Your task to perform on an android device: open chrome privacy settings Image 0: 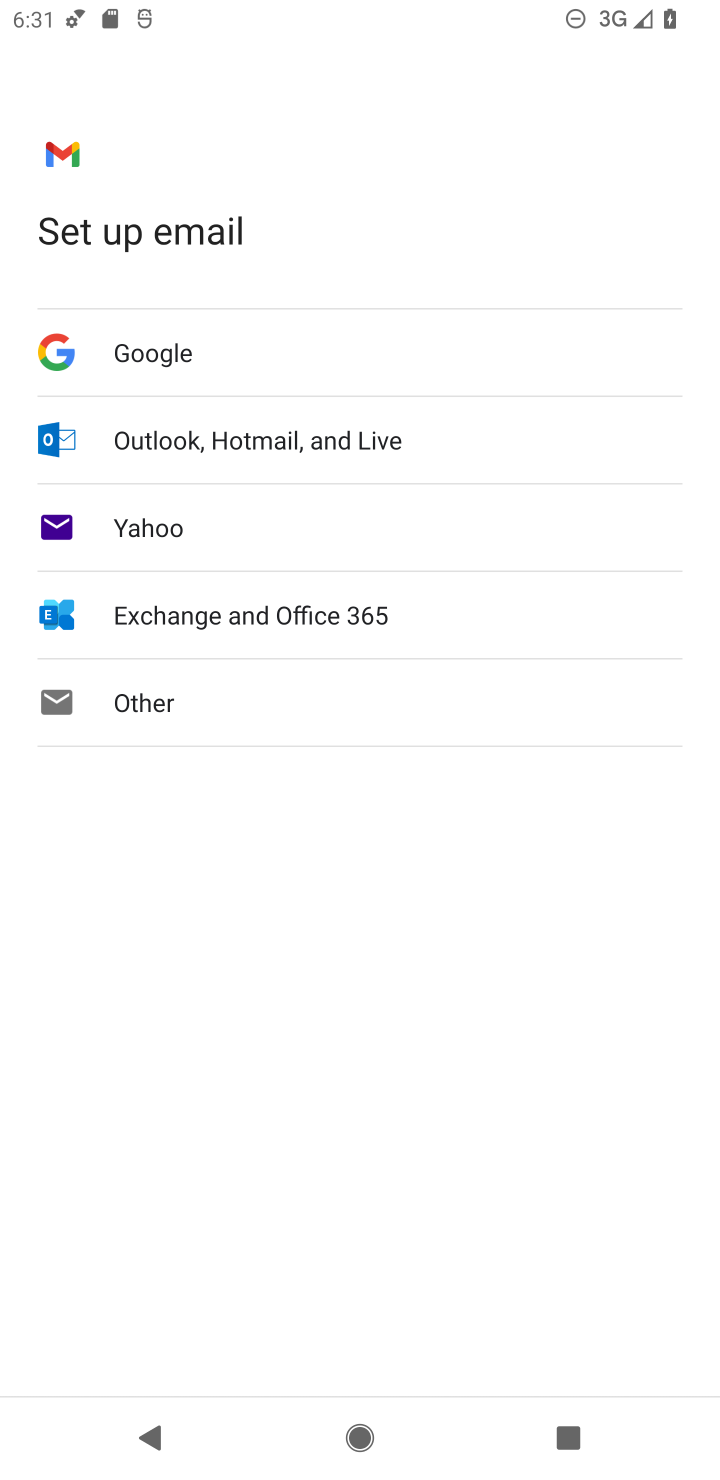
Step 0: press home button
Your task to perform on an android device: open chrome privacy settings Image 1: 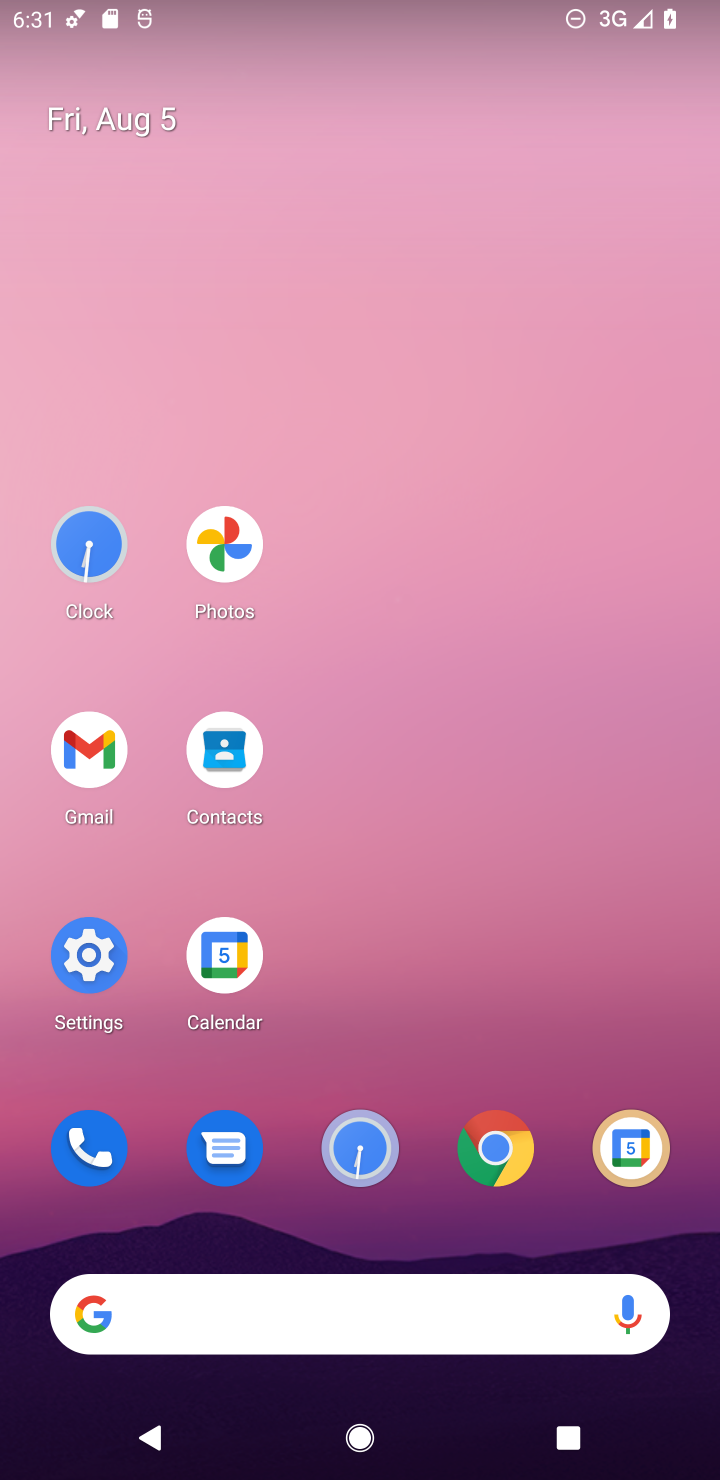
Step 1: click (484, 1148)
Your task to perform on an android device: open chrome privacy settings Image 2: 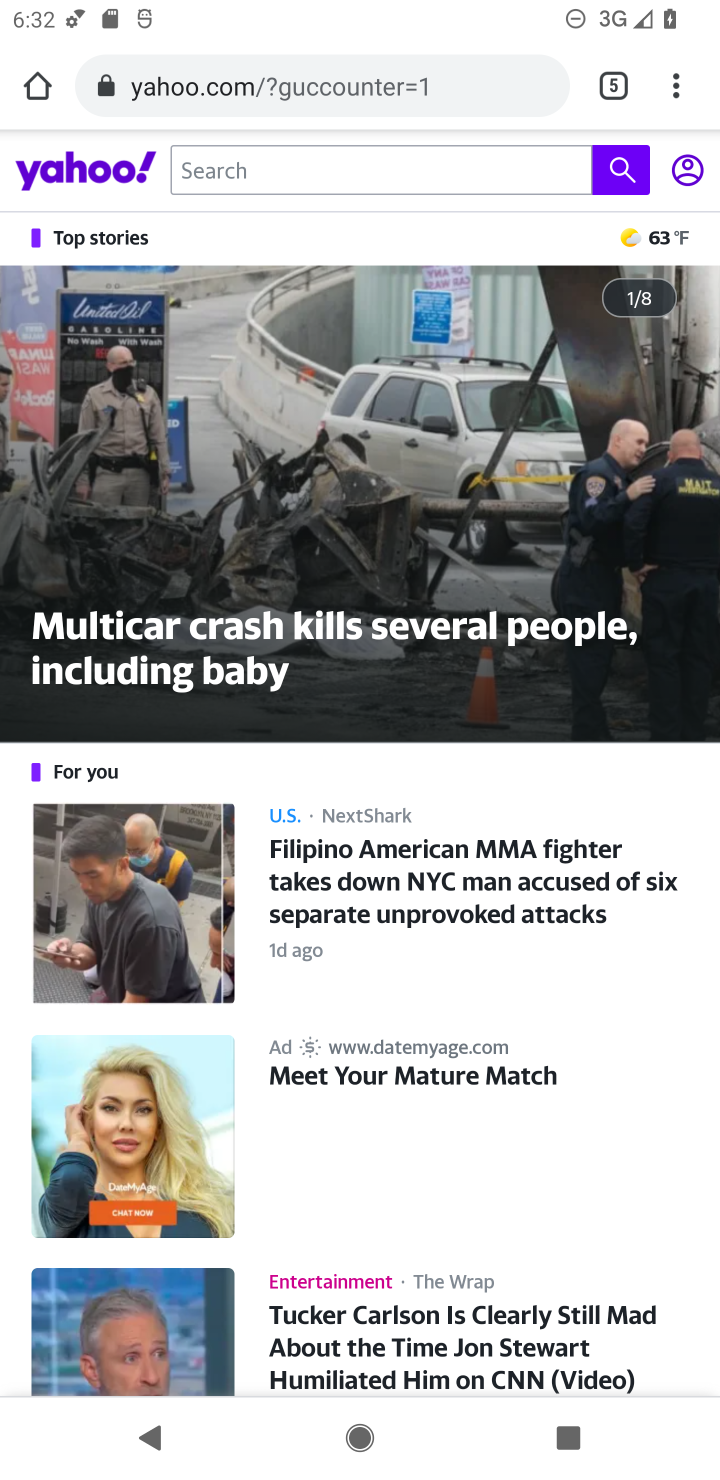
Step 2: click (666, 79)
Your task to perform on an android device: open chrome privacy settings Image 3: 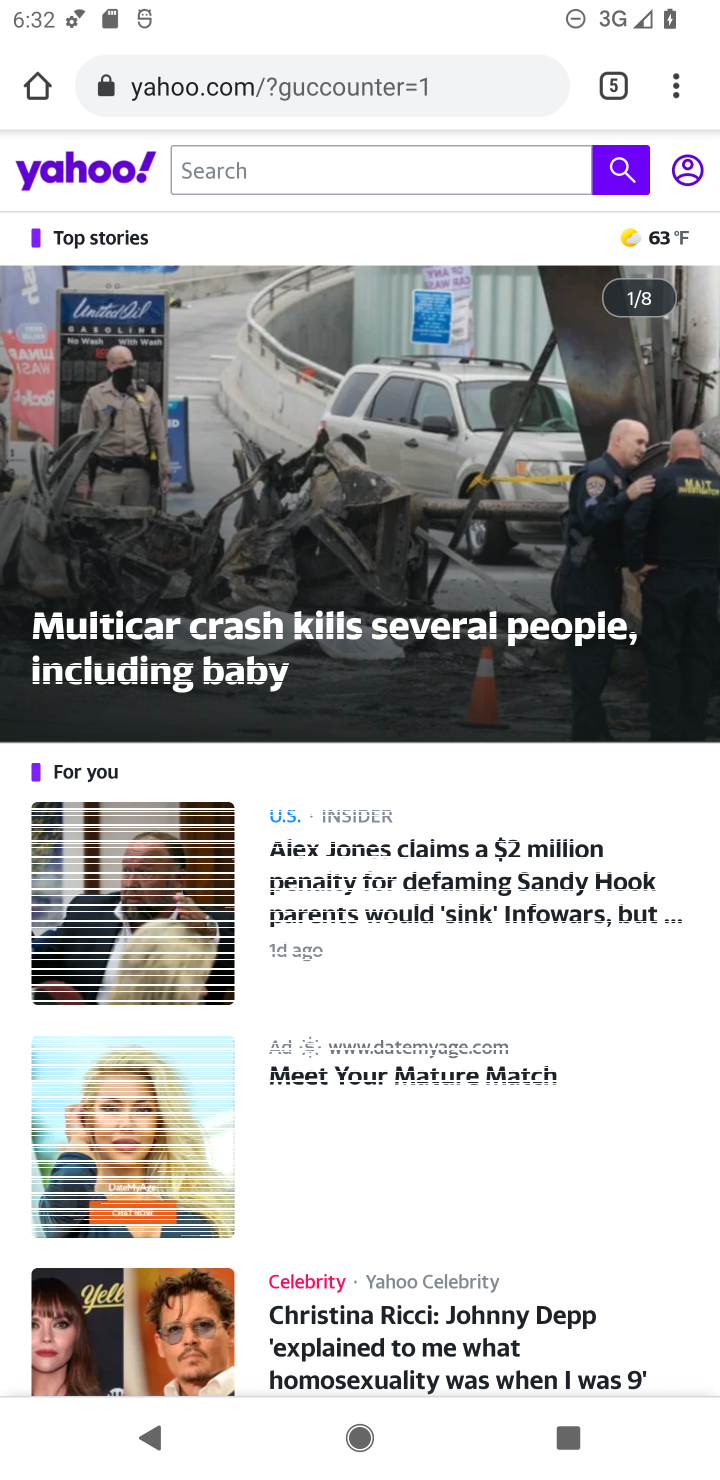
Step 3: click (682, 97)
Your task to perform on an android device: open chrome privacy settings Image 4: 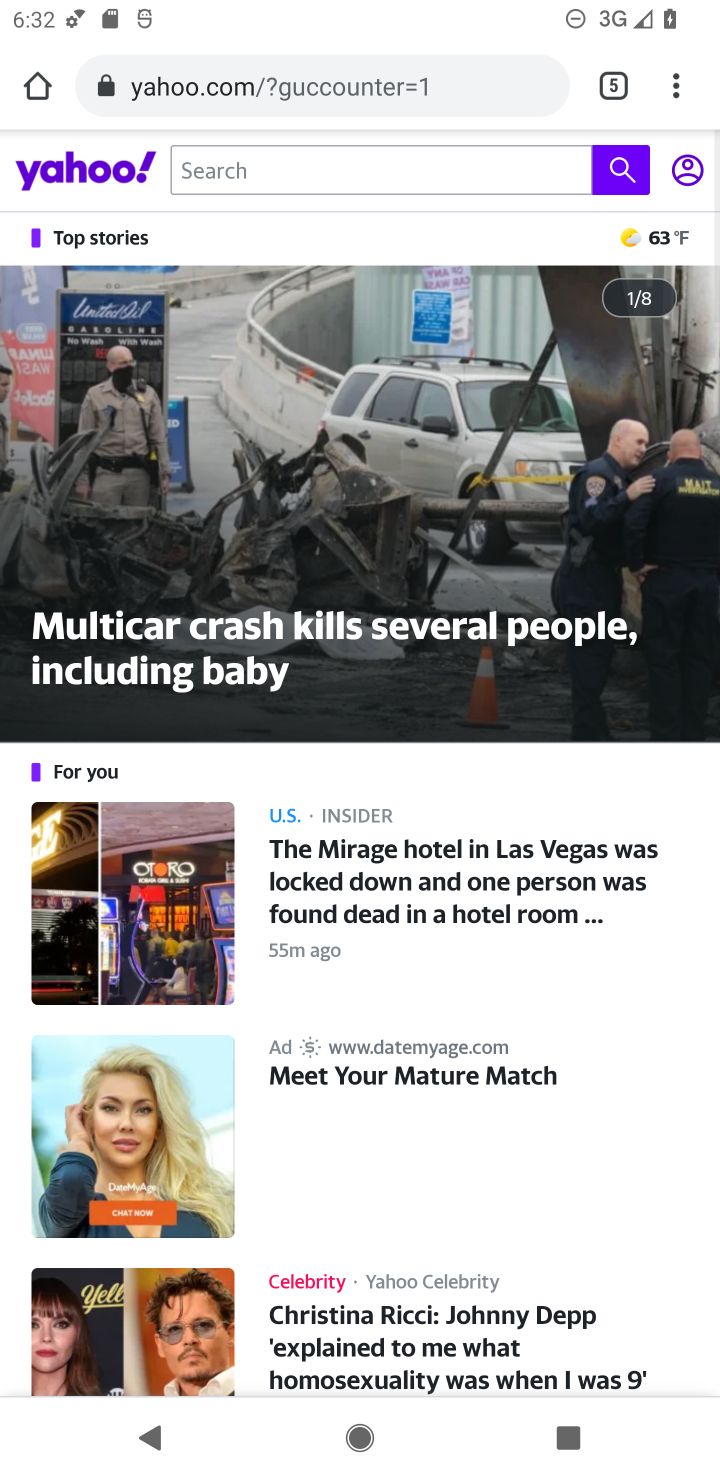
Step 4: click (682, 97)
Your task to perform on an android device: open chrome privacy settings Image 5: 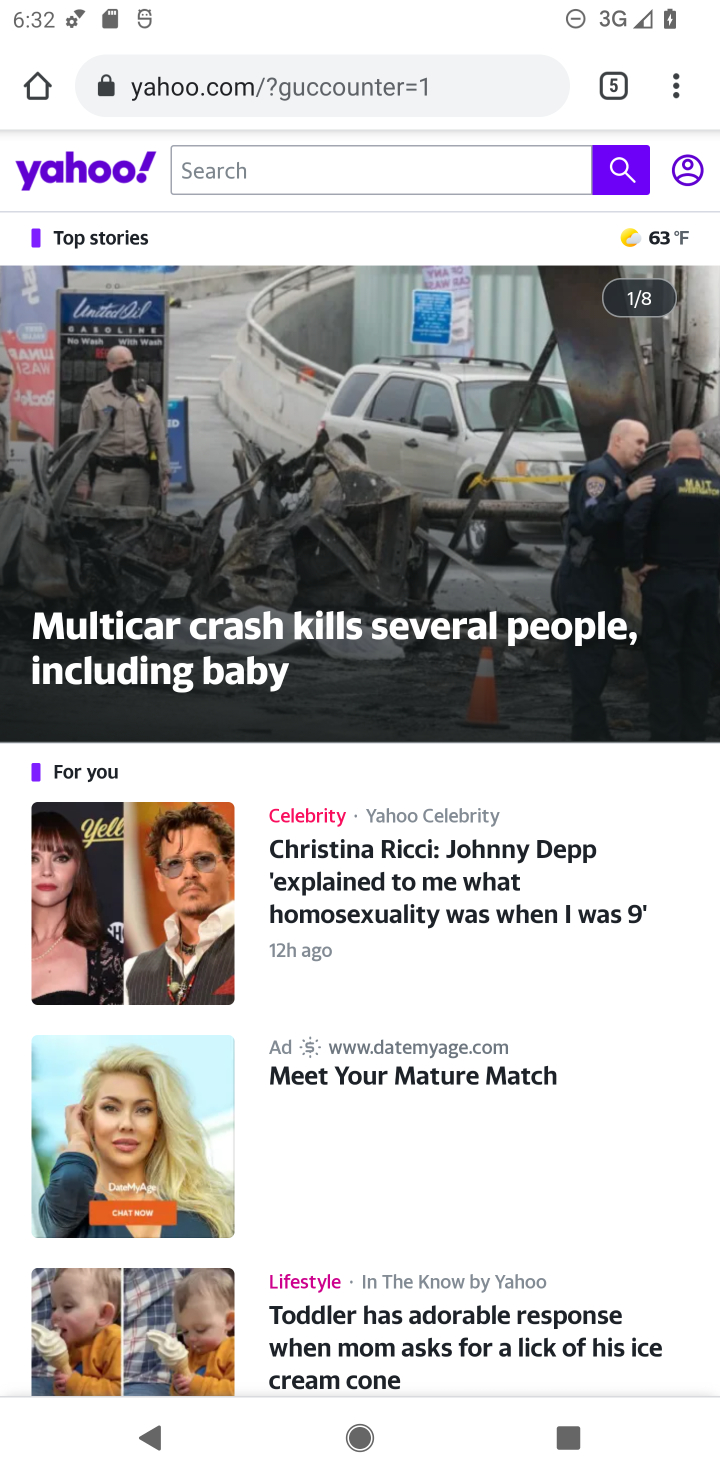
Step 5: click (671, 53)
Your task to perform on an android device: open chrome privacy settings Image 6: 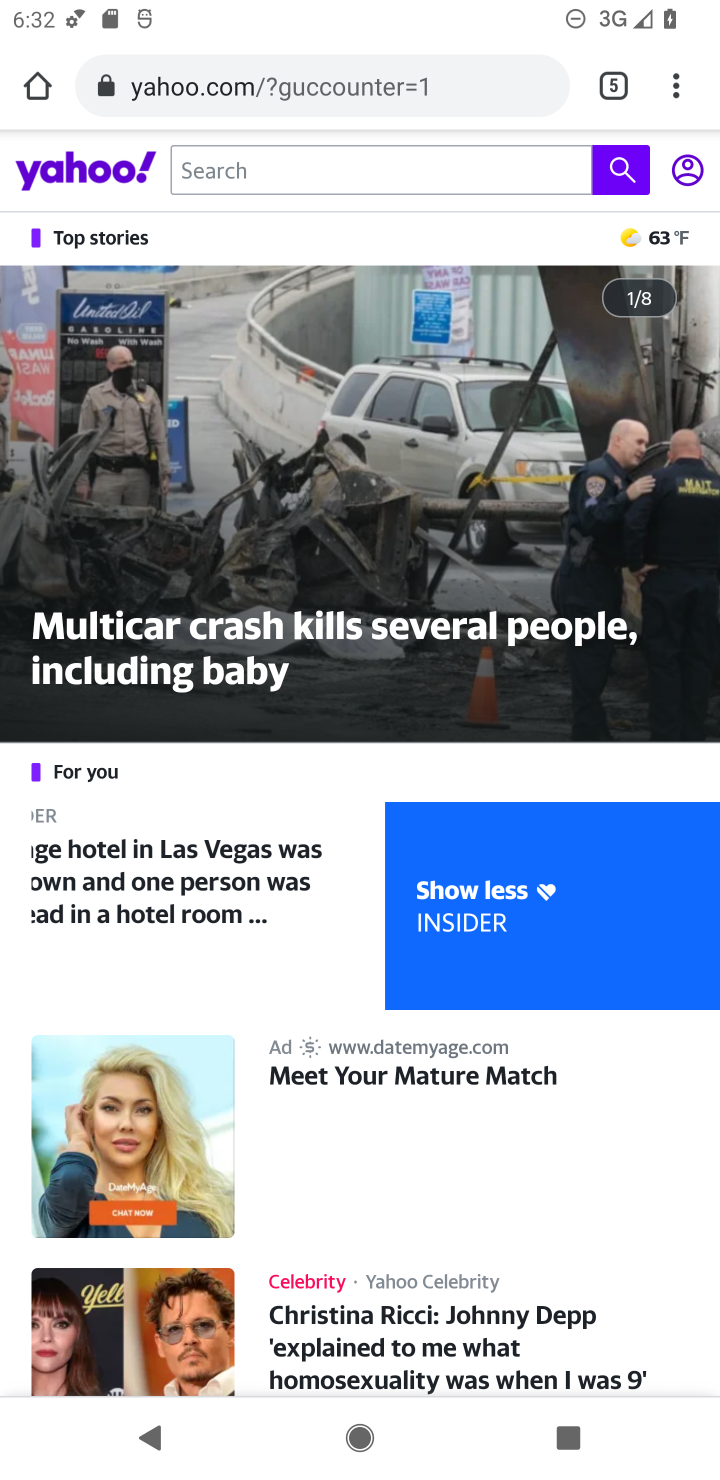
Step 6: click (681, 85)
Your task to perform on an android device: open chrome privacy settings Image 7: 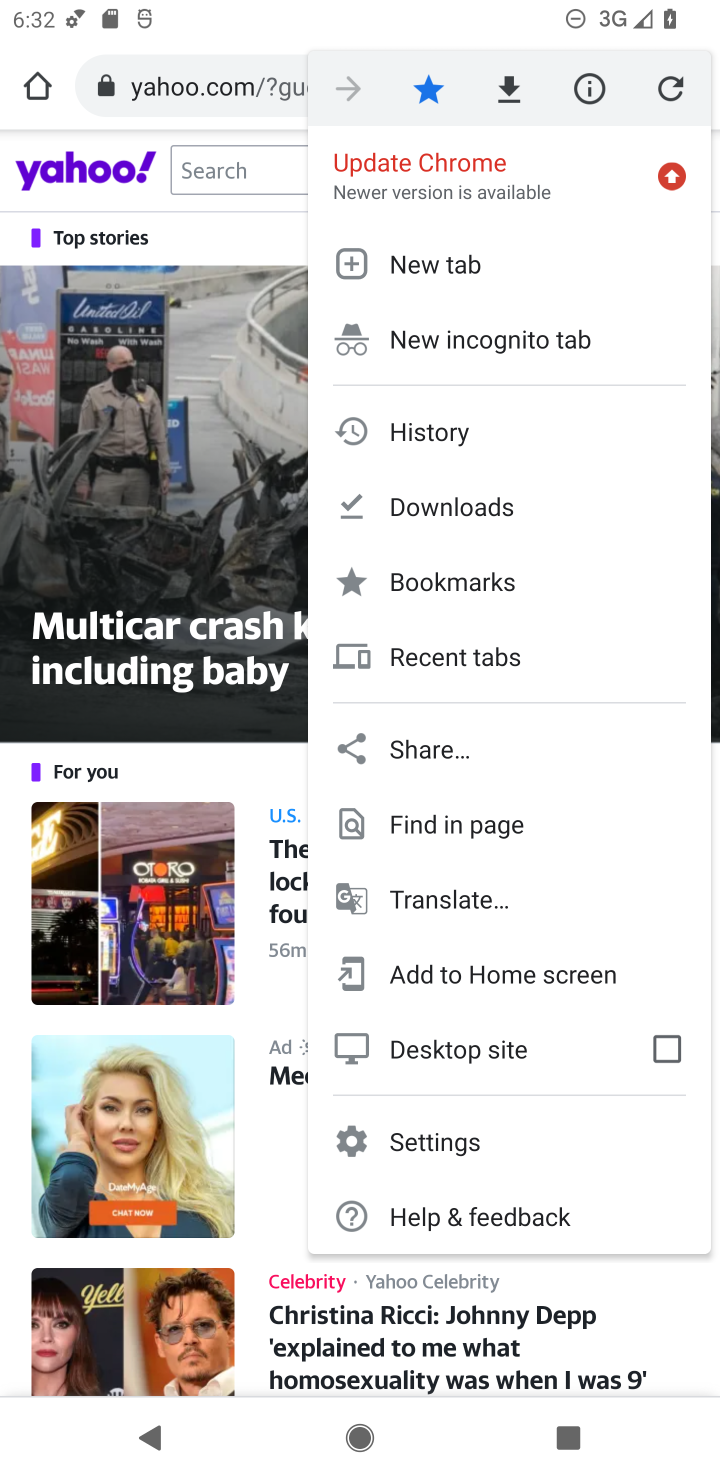
Step 7: click (441, 1143)
Your task to perform on an android device: open chrome privacy settings Image 8: 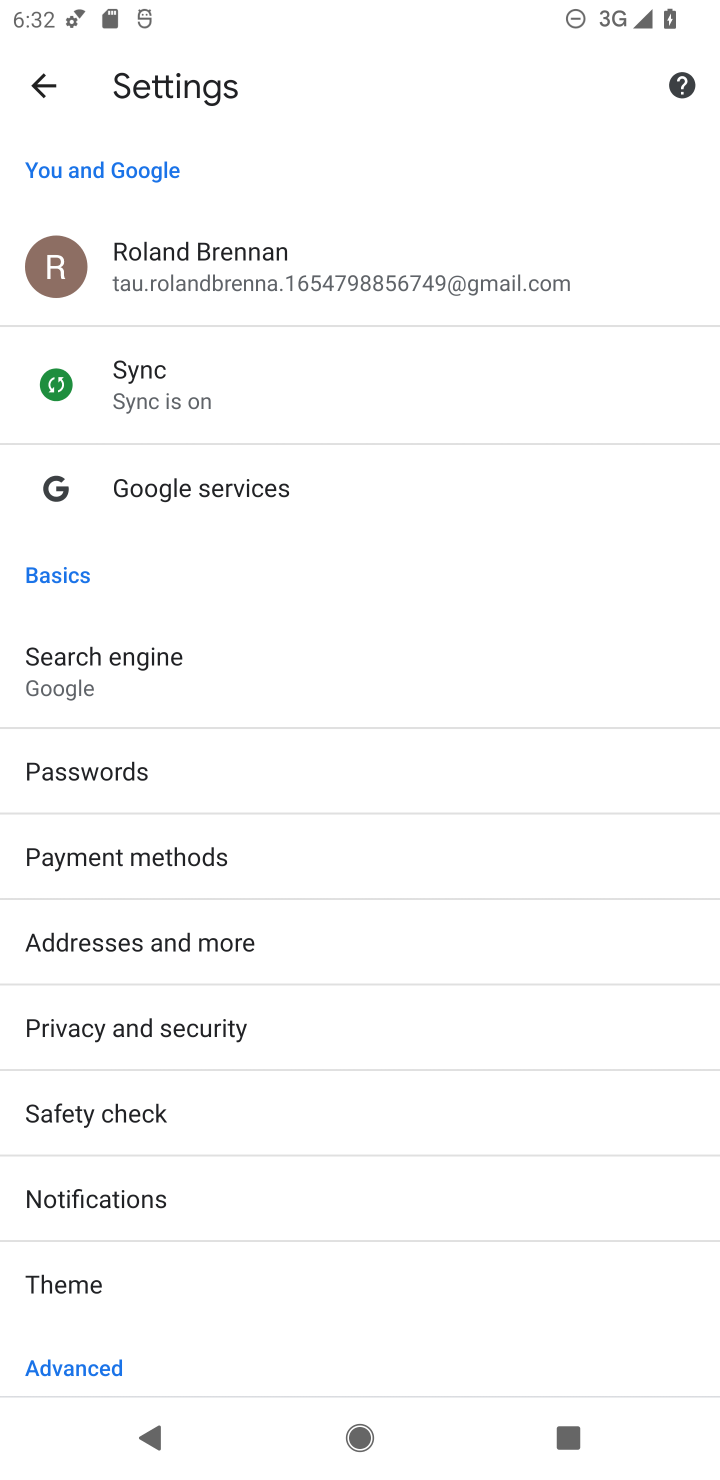
Step 8: click (164, 1014)
Your task to perform on an android device: open chrome privacy settings Image 9: 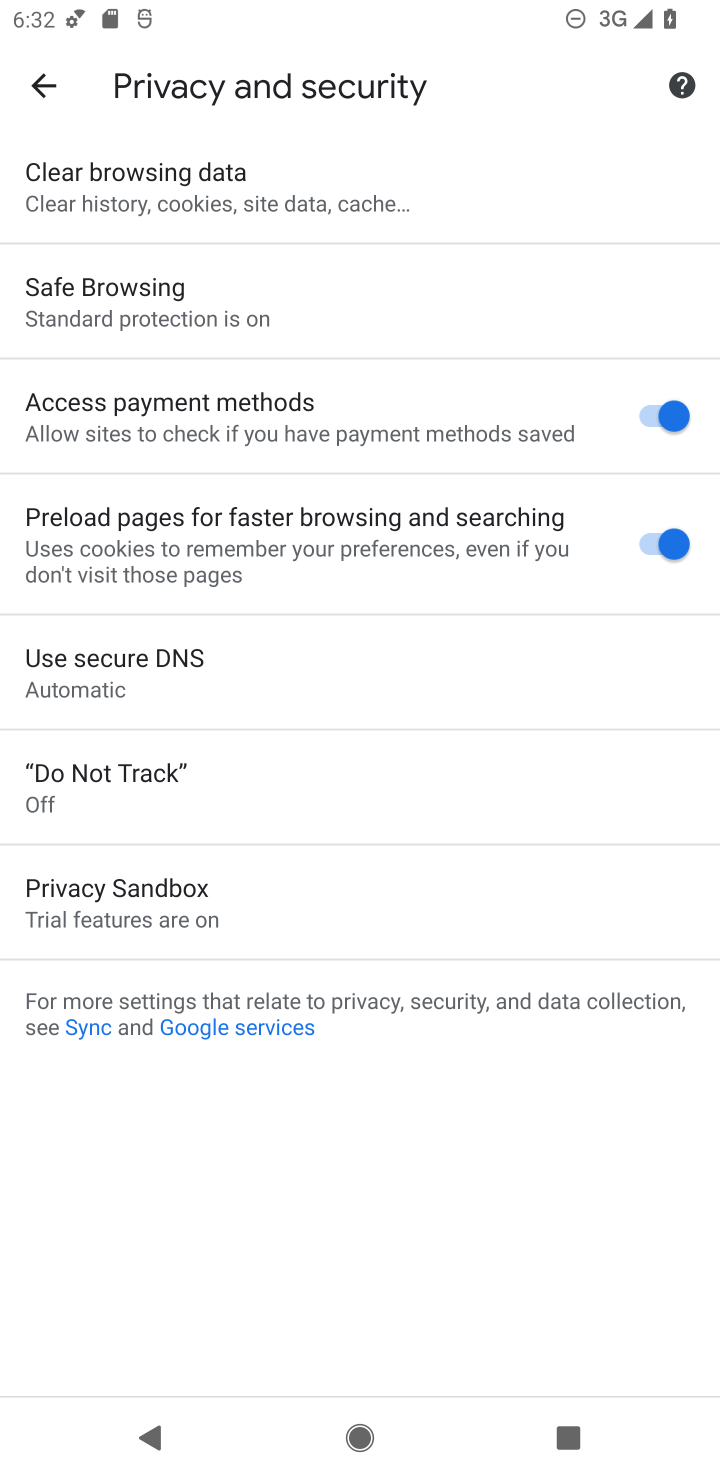
Step 9: task complete